Your task to perform on an android device: set an alarm Image 0: 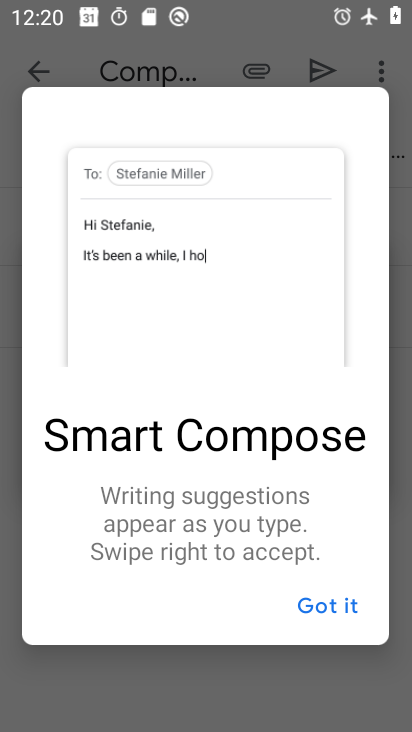
Step 0: press home button
Your task to perform on an android device: set an alarm Image 1: 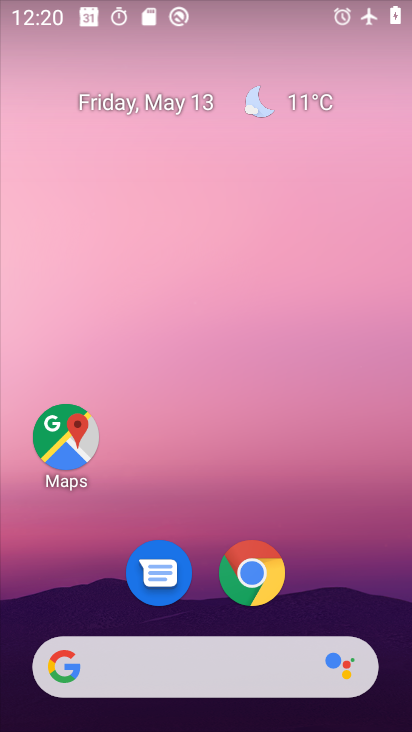
Step 1: click (380, 389)
Your task to perform on an android device: set an alarm Image 2: 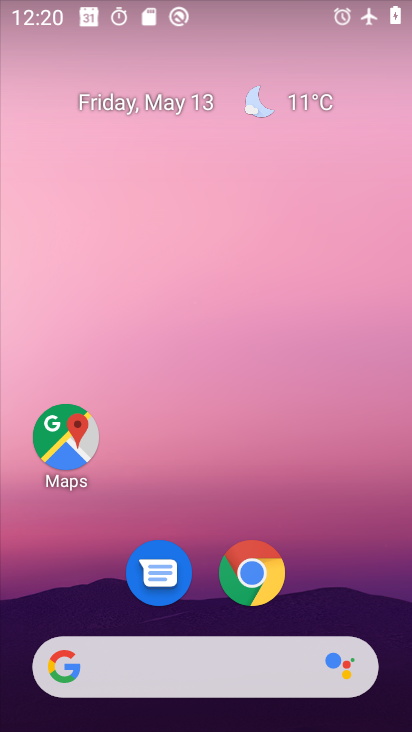
Step 2: drag from (403, 697) to (352, 308)
Your task to perform on an android device: set an alarm Image 3: 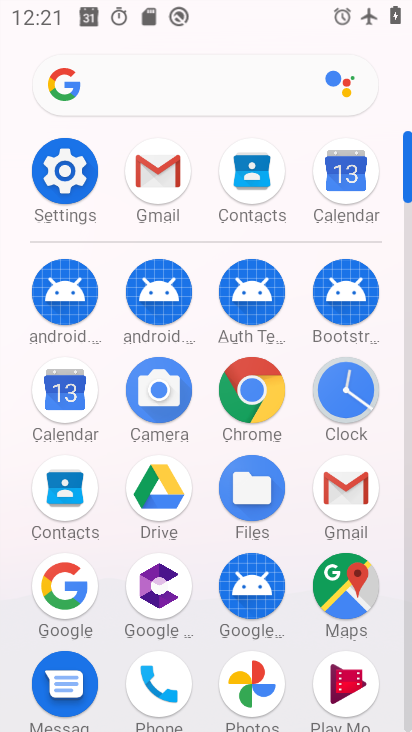
Step 3: click (348, 386)
Your task to perform on an android device: set an alarm Image 4: 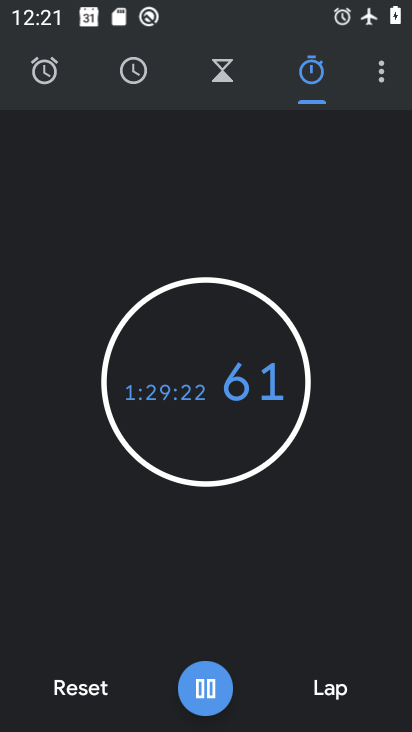
Step 4: click (34, 78)
Your task to perform on an android device: set an alarm Image 5: 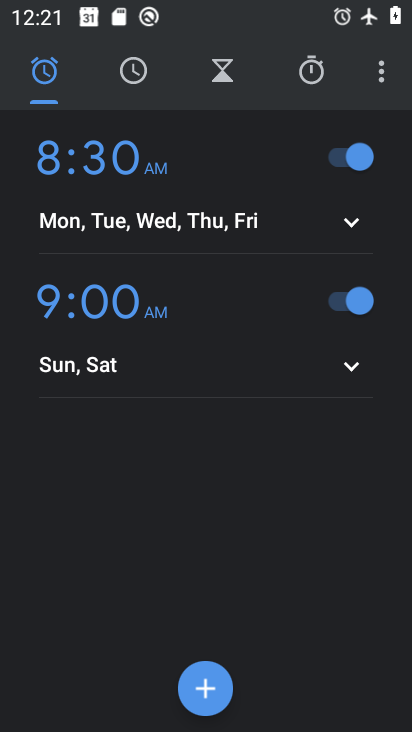
Step 5: click (346, 372)
Your task to perform on an android device: set an alarm Image 6: 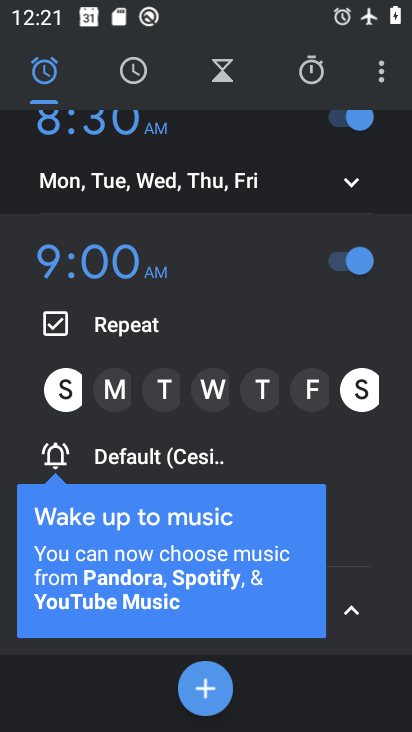
Step 6: click (338, 618)
Your task to perform on an android device: set an alarm Image 7: 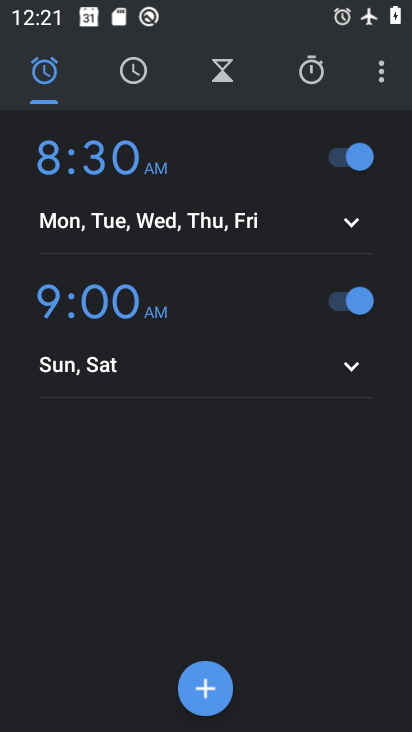
Step 7: click (211, 679)
Your task to perform on an android device: set an alarm Image 8: 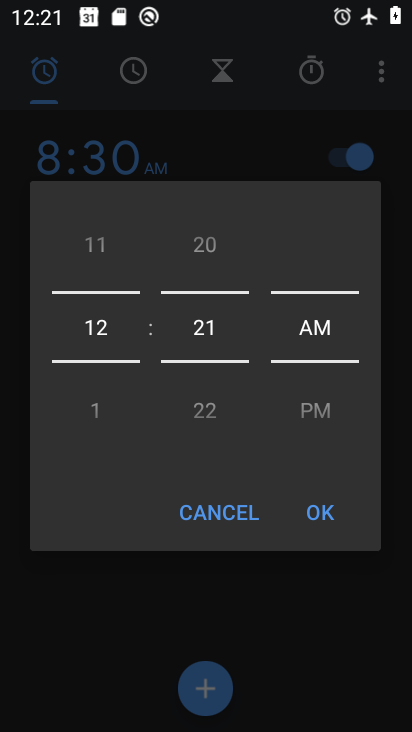
Step 8: click (325, 517)
Your task to perform on an android device: set an alarm Image 9: 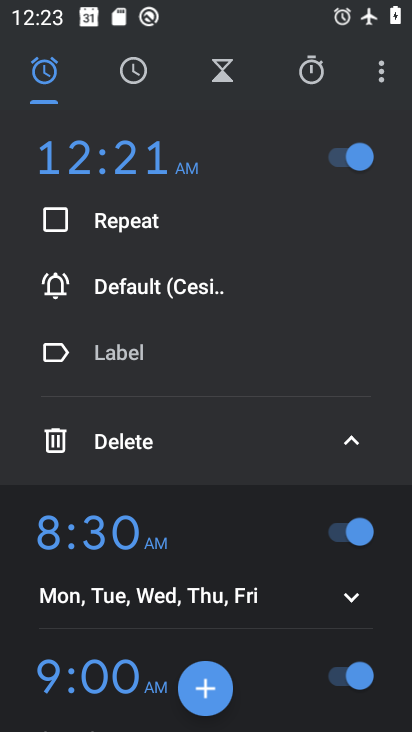
Step 9: click (60, 219)
Your task to perform on an android device: set an alarm Image 10: 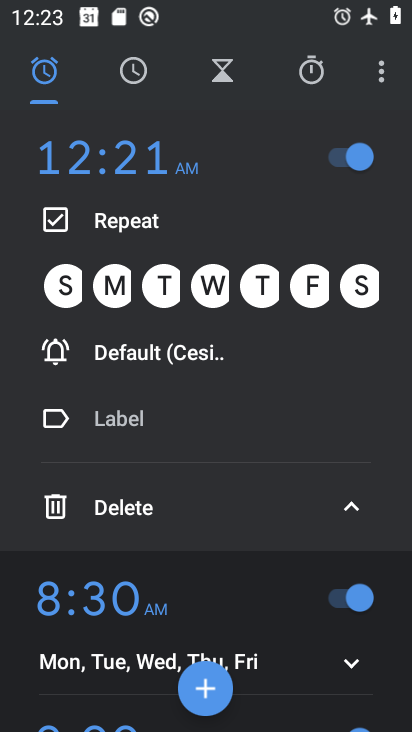
Step 10: click (354, 510)
Your task to perform on an android device: set an alarm Image 11: 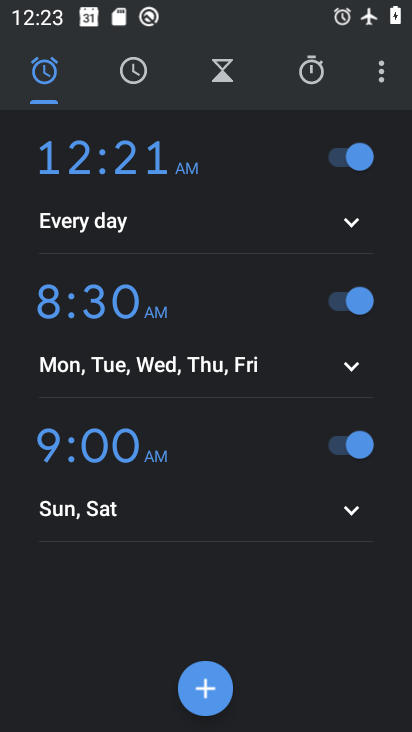
Step 11: task complete